Your task to perform on an android device: move an email to a new category in the gmail app Image 0: 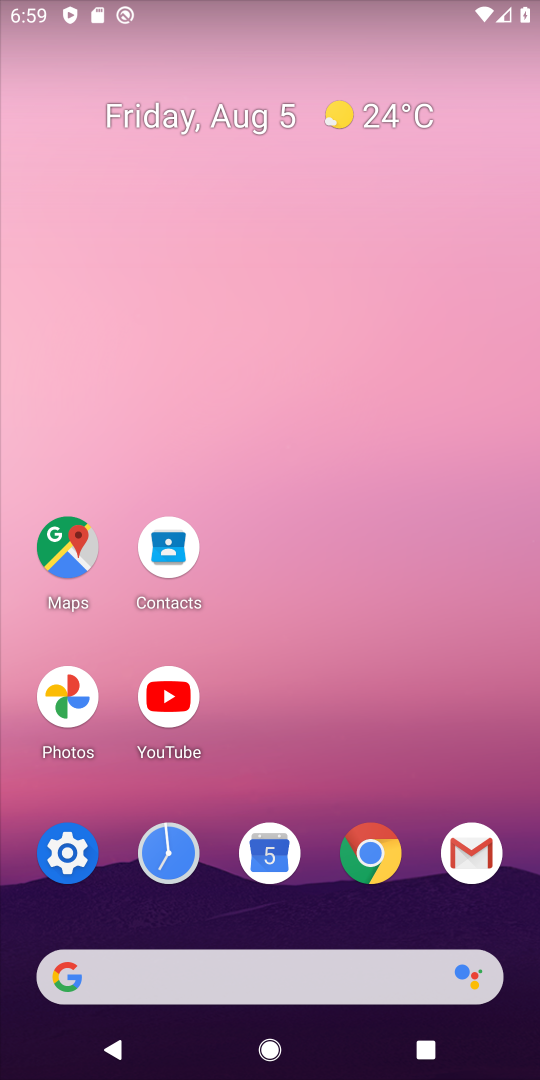
Step 0: click (475, 856)
Your task to perform on an android device: move an email to a new category in the gmail app Image 1: 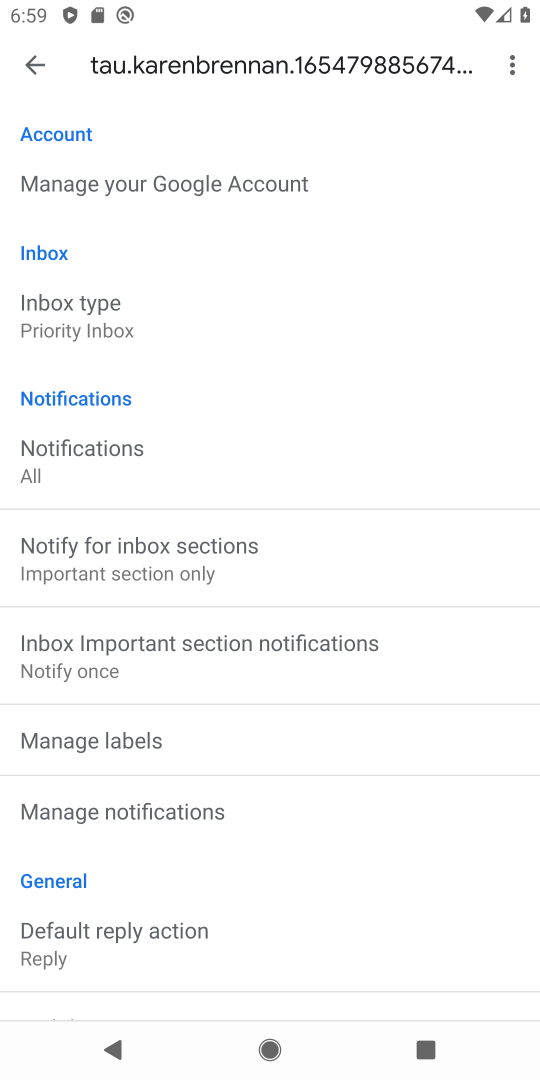
Step 1: click (43, 67)
Your task to perform on an android device: move an email to a new category in the gmail app Image 2: 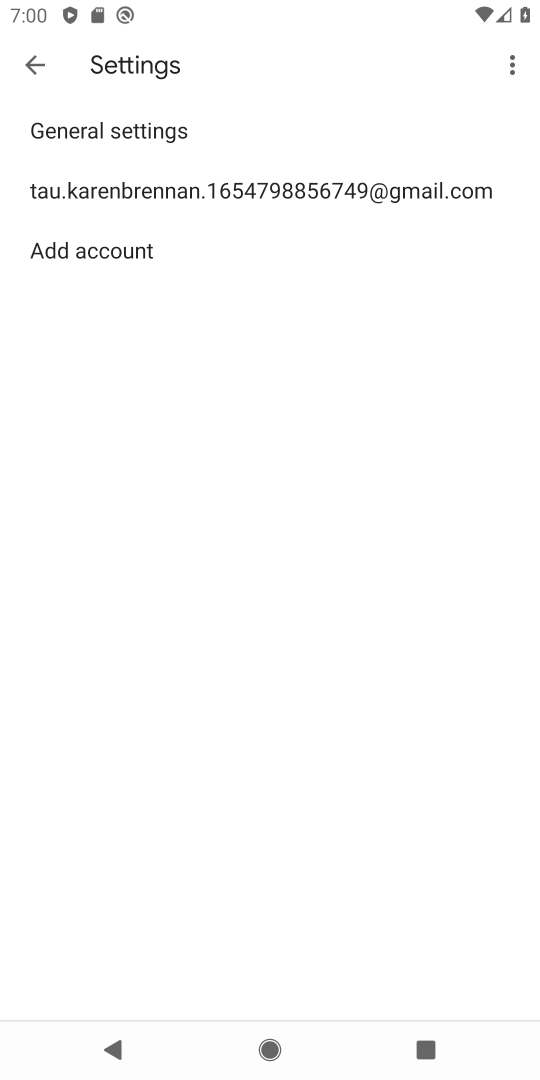
Step 2: click (37, 67)
Your task to perform on an android device: move an email to a new category in the gmail app Image 3: 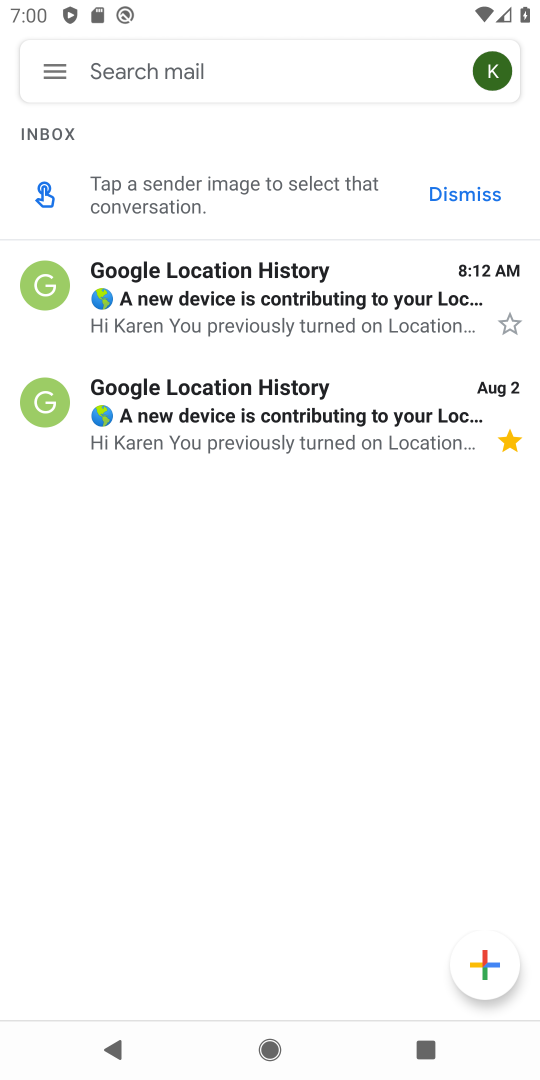
Step 3: click (212, 285)
Your task to perform on an android device: move an email to a new category in the gmail app Image 4: 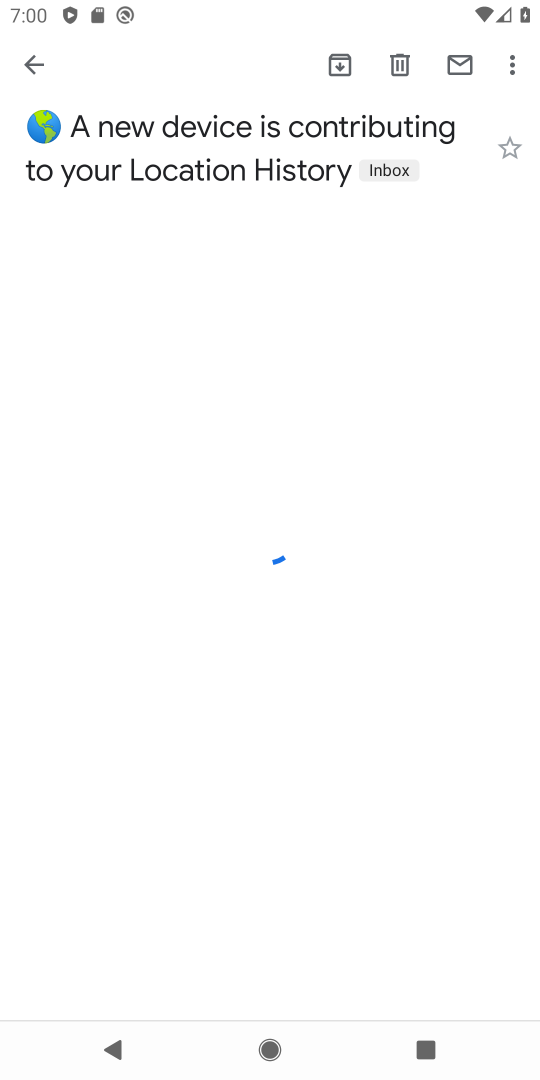
Step 4: click (509, 69)
Your task to perform on an android device: move an email to a new category in the gmail app Image 5: 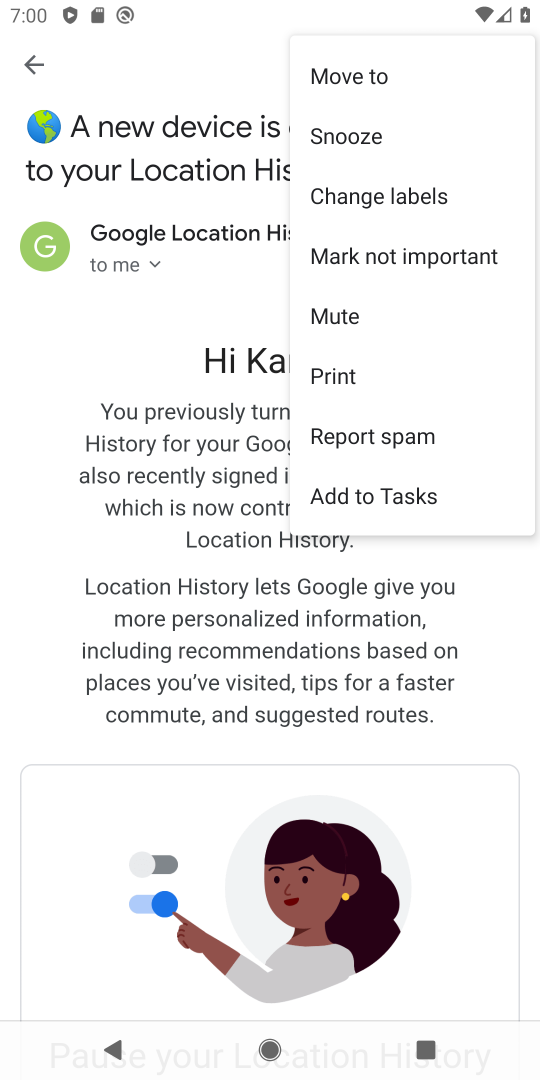
Step 5: click (341, 73)
Your task to perform on an android device: move an email to a new category in the gmail app Image 6: 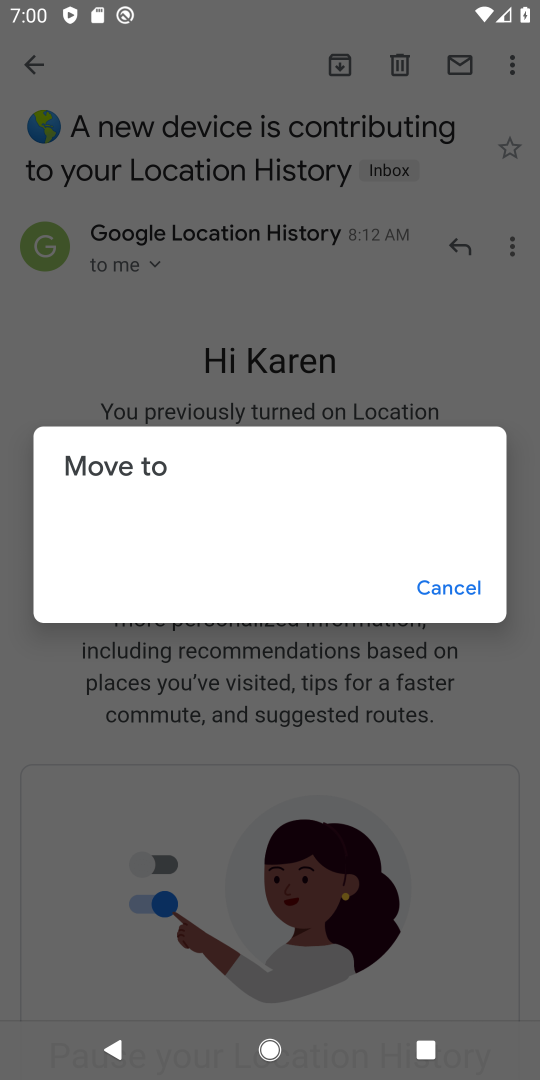
Step 6: click (240, 525)
Your task to perform on an android device: move an email to a new category in the gmail app Image 7: 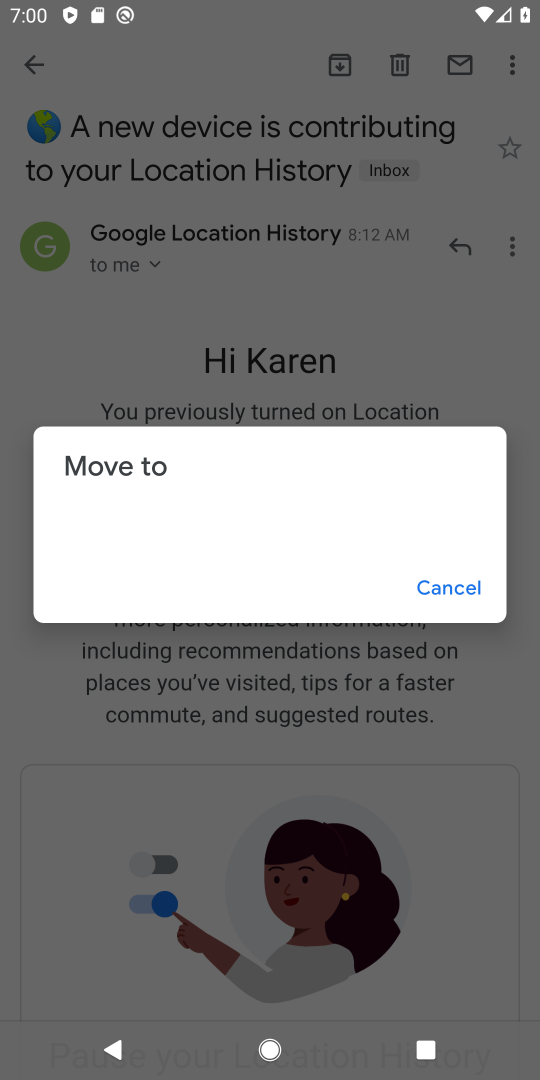
Step 7: click (461, 588)
Your task to perform on an android device: move an email to a new category in the gmail app Image 8: 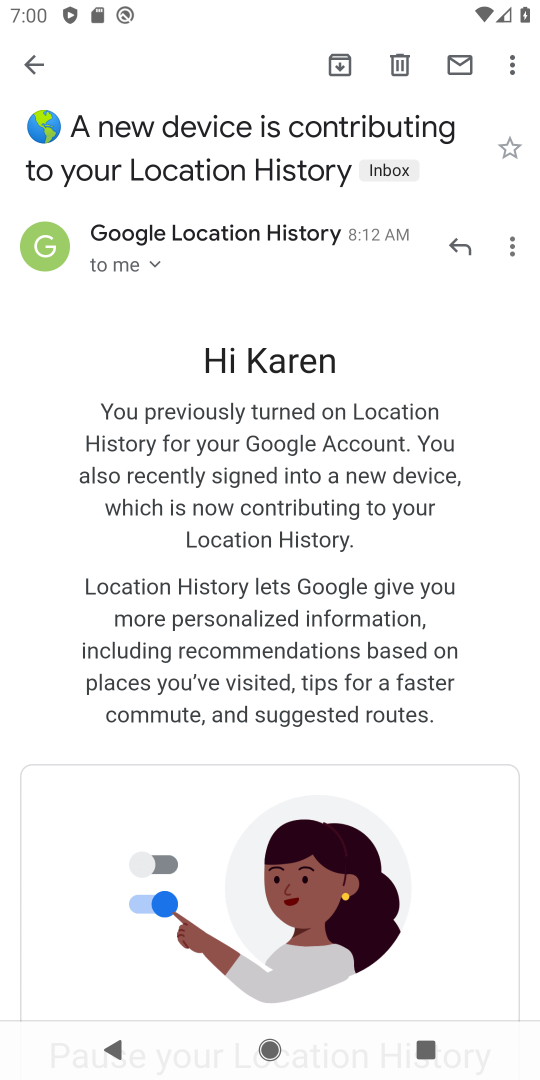
Step 8: task complete